Your task to perform on an android device: Toggle the flashlight Image 0: 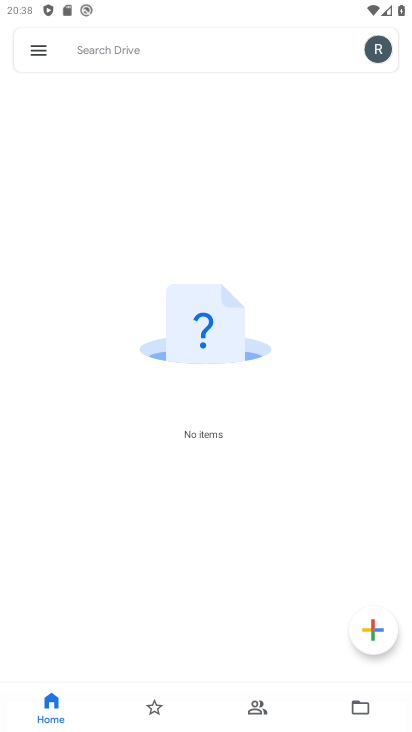
Step 0: press home button
Your task to perform on an android device: Toggle the flashlight Image 1: 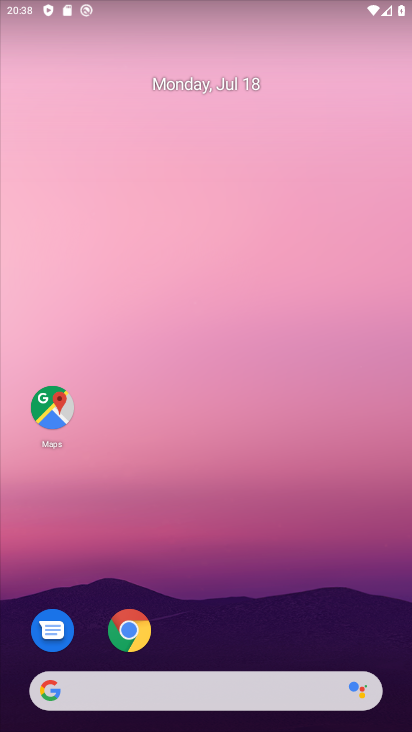
Step 1: drag from (196, 662) to (216, 244)
Your task to perform on an android device: Toggle the flashlight Image 2: 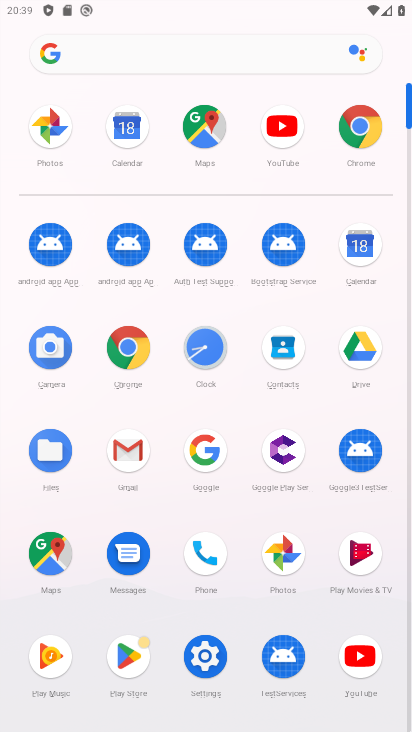
Step 2: click (201, 650)
Your task to perform on an android device: Toggle the flashlight Image 3: 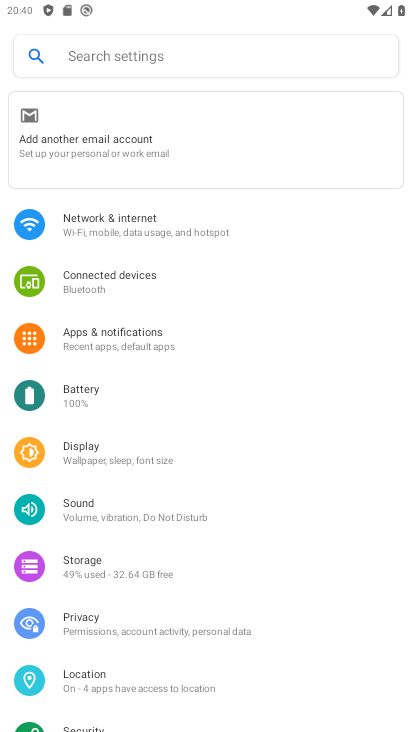
Step 3: task complete